Your task to perform on an android device: Open maps Image 0: 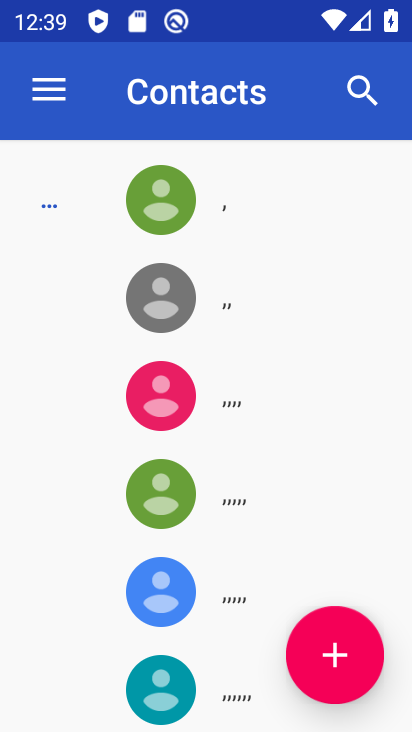
Step 0: press home button
Your task to perform on an android device: Open maps Image 1: 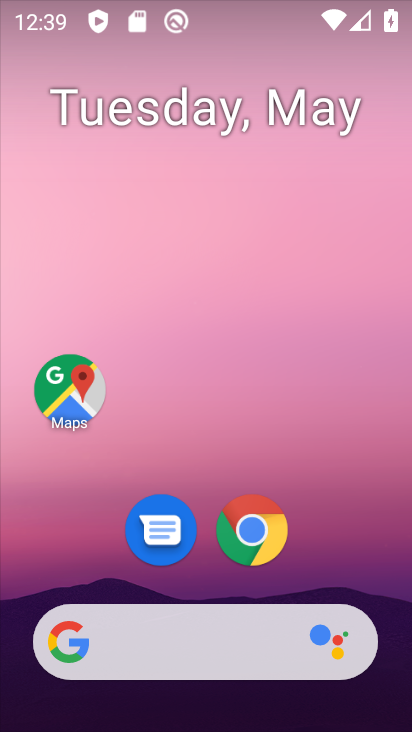
Step 1: click (64, 390)
Your task to perform on an android device: Open maps Image 2: 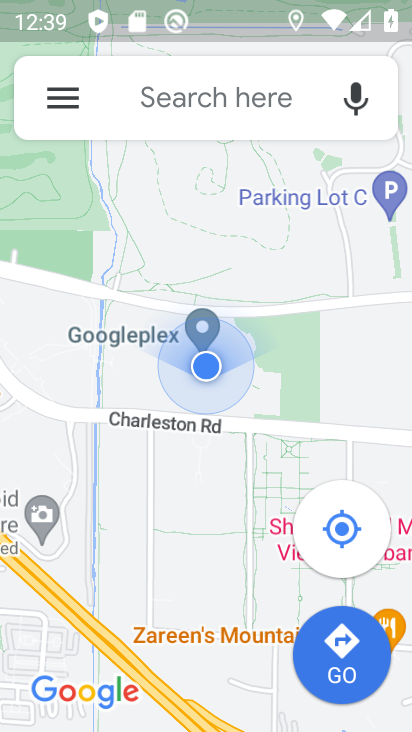
Step 2: task complete